Your task to perform on an android device: turn off javascript in the chrome app Image 0: 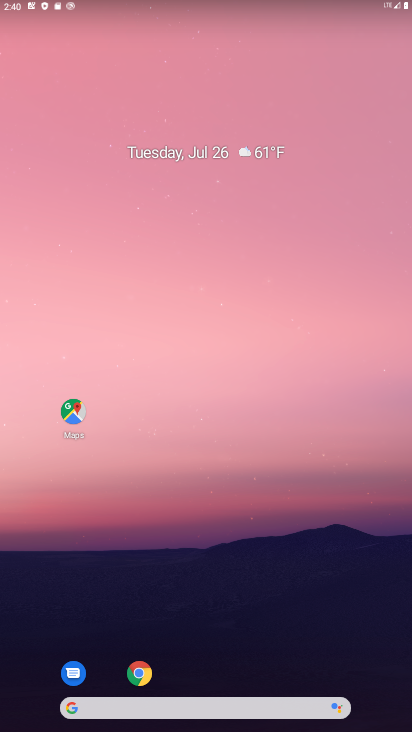
Step 0: drag from (158, 333) to (159, 19)
Your task to perform on an android device: turn off javascript in the chrome app Image 1: 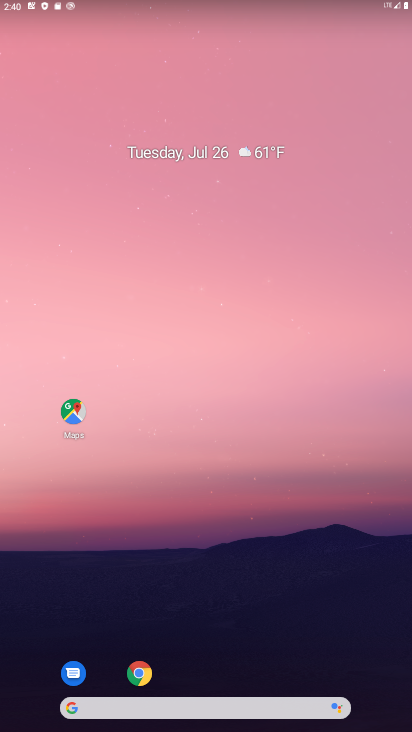
Step 1: click (144, 665)
Your task to perform on an android device: turn off javascript in the chrome app Image 2: 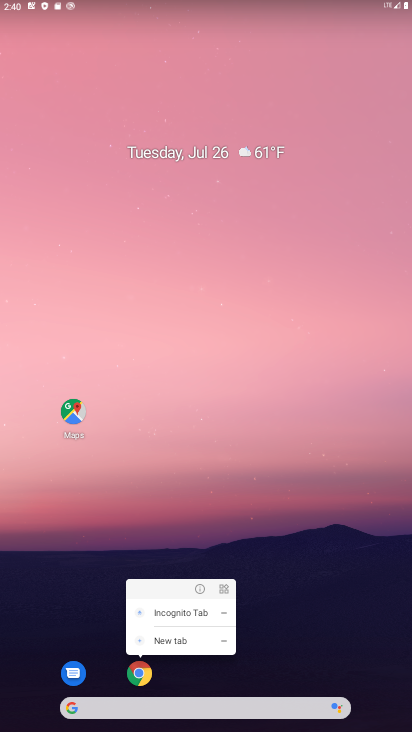
Step 2: click (193, 584)
Your task to perform on an android device: turn off javascript in the chrome app Image 3: 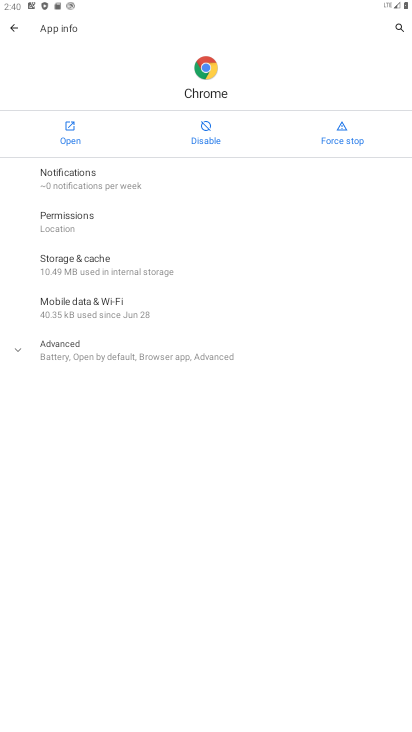
Step 3: click (62, 128)
Your task to perform on an android device: turn off javascript in the chrome app Image 4: 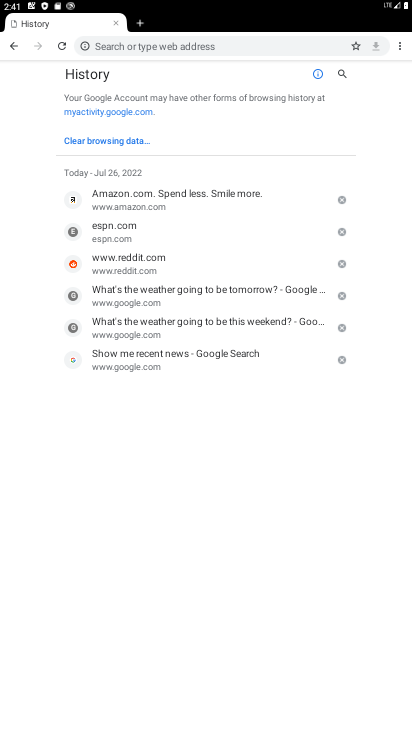
Step 4: click (403, 47)
Your task to perform on an android device: turn off javascript in the chrome app Image 5: 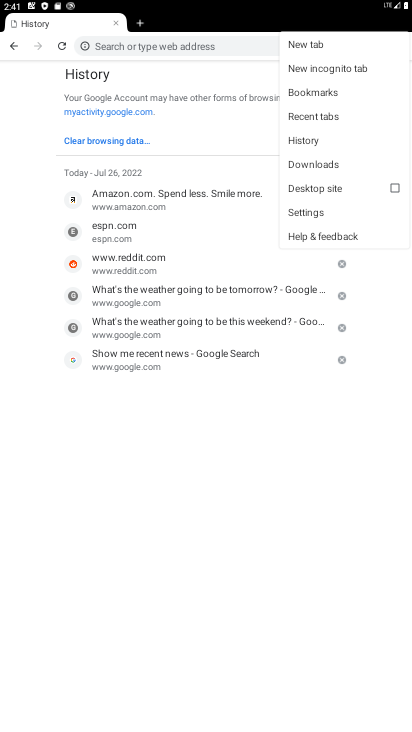
Step 5: click (308, 216)
Your task to perform on an android device: turn off javascript in the chrome app Image 6: 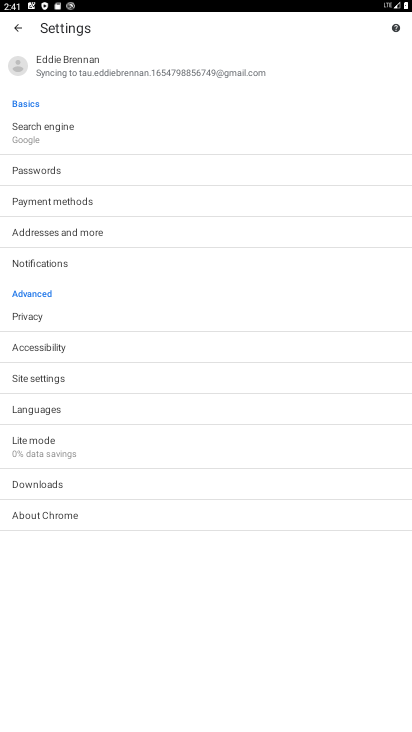
Step 6: drag from (121, 650) to (174, 315)
Your task to perform on an android device: turn off javascript in the chrome app Image 7: 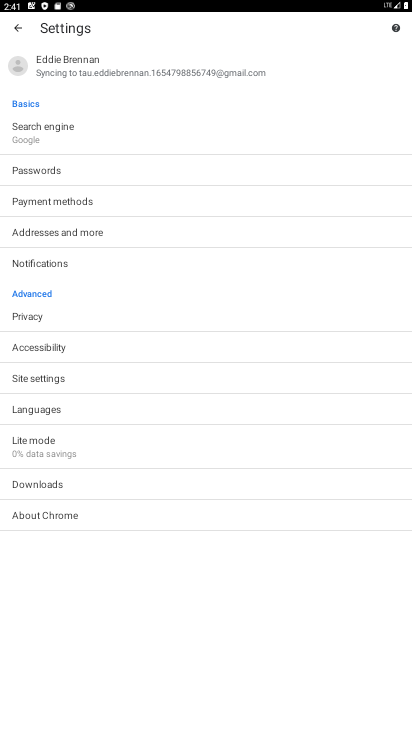
Step 7: click (80, 373)
Your task to perform on an android device: turn off javascript in the chrome app Image 8: 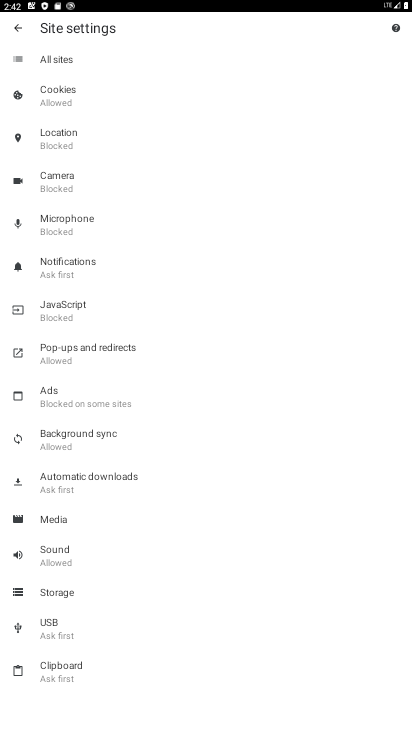
Step 8: drag from (154, 525) to (183, 273)
Your task to perform on an android device: turn off javascript in the chrome app Image 9: 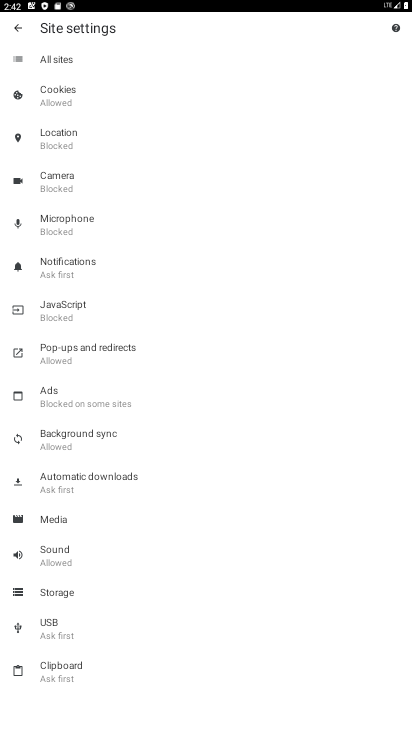
Step 9: click (89, 311)
Your task to perform on an android device: turn off javascript in the chrome app Image 10: 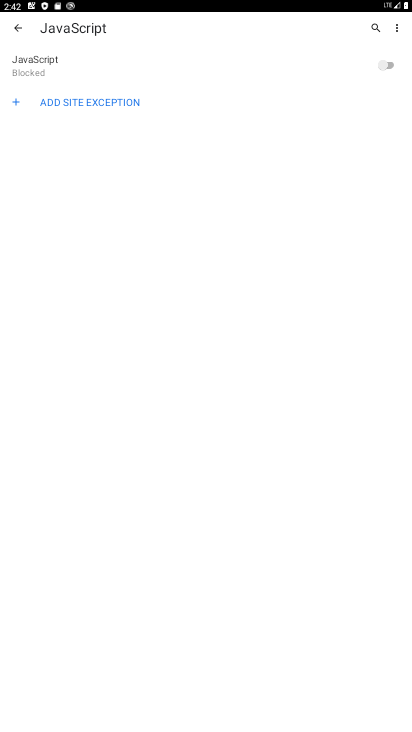
Step 10: task complete